Your task to perform on an android device: change notification settings in the gmail app Image 0: 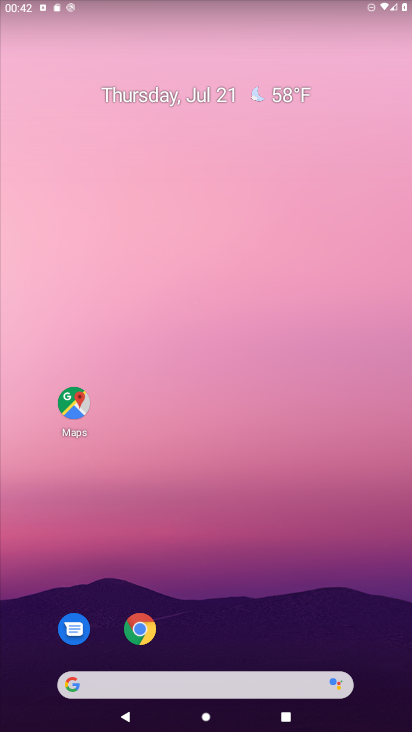
Step 0: drag from (207, 624) to (209, 153)
Your task to perform on an android device: change notification settings in the gmail app Image 1: 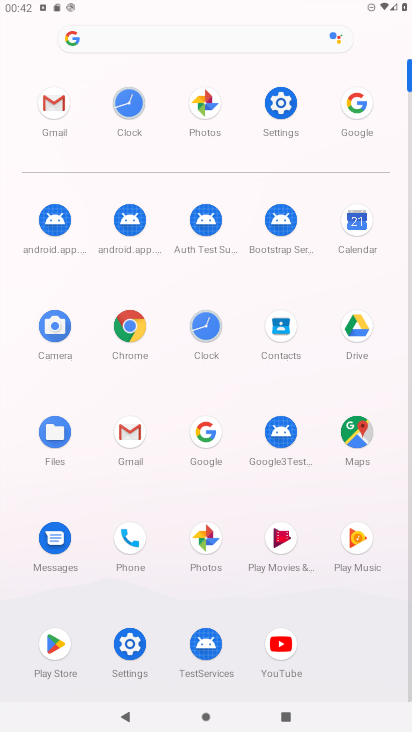
Step 1: click (55, 111)
Your task to perform on an android device: change notification settings in the gmail app Image 2: 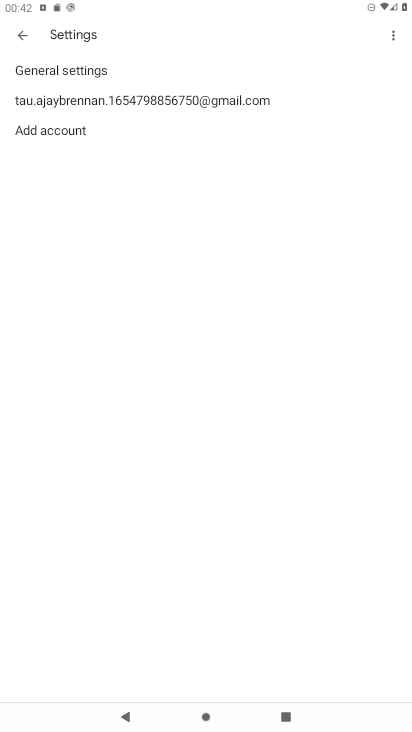
Step 2: click (55, 111)
Your task to perform on an android device: change notification settings in the gmail app Image 3: 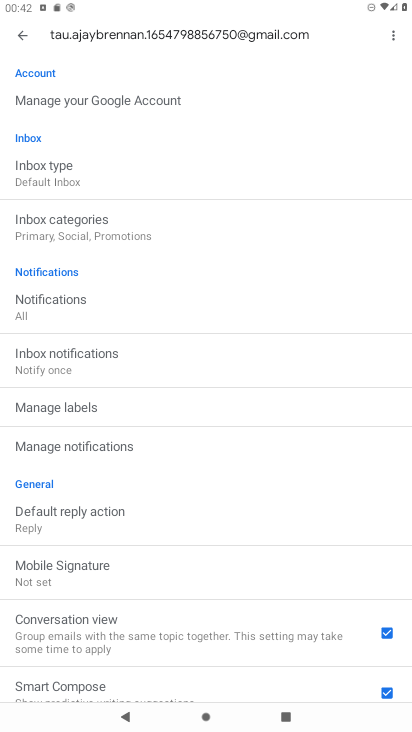
Step 3: click (112, 443)
Your task to perform on an android device: change notification settings in the gmail app Image 4: 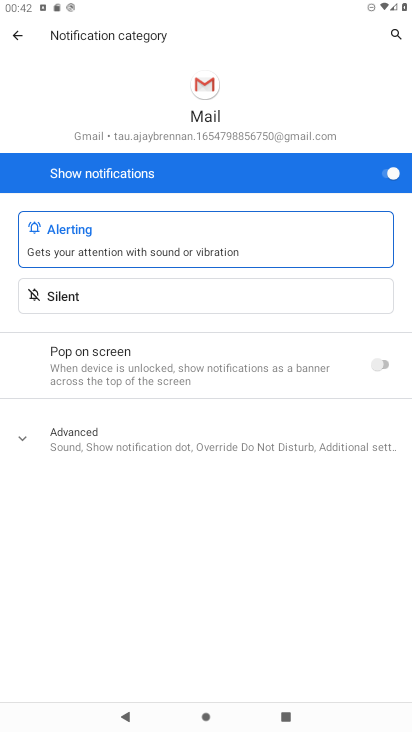
Step 4: click (384, 179)
Your task to perform on an android device: change notification settings in the gmail app Image 5: 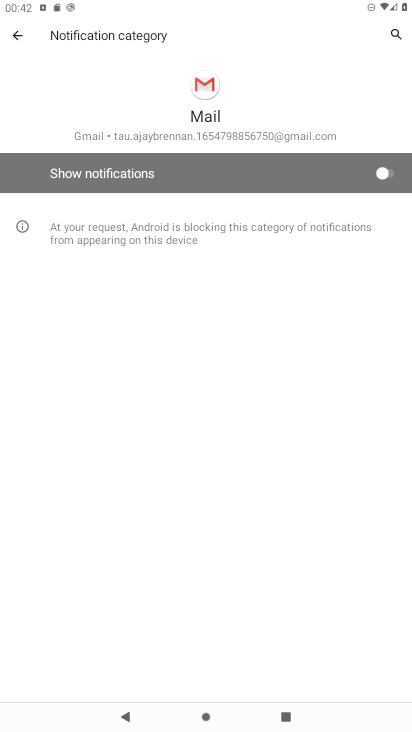
Step 5: task complete